Your task to perform on an android device: What's on my calendar today? Image 0: 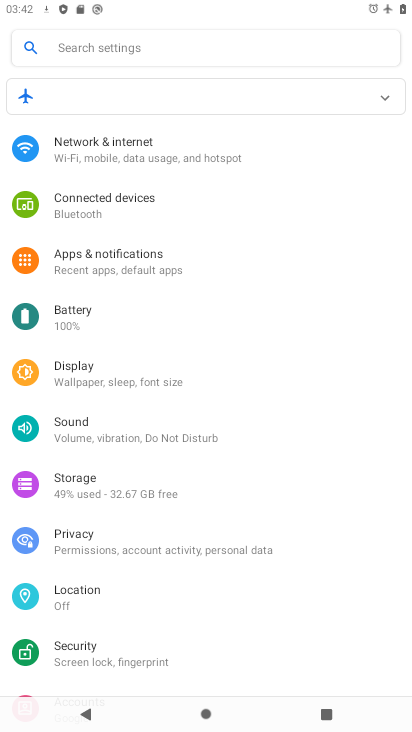
Step 0: press home button
Your task to perform on an android device: What's on my calendar today? Image 1: 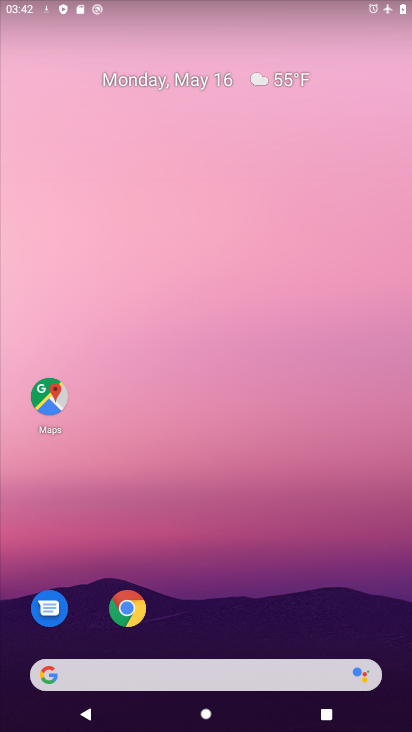
Step 1: drag from (216, 628) to (204, 254)
Your task to perform on an android device: What's on my calendar today? Image 2: 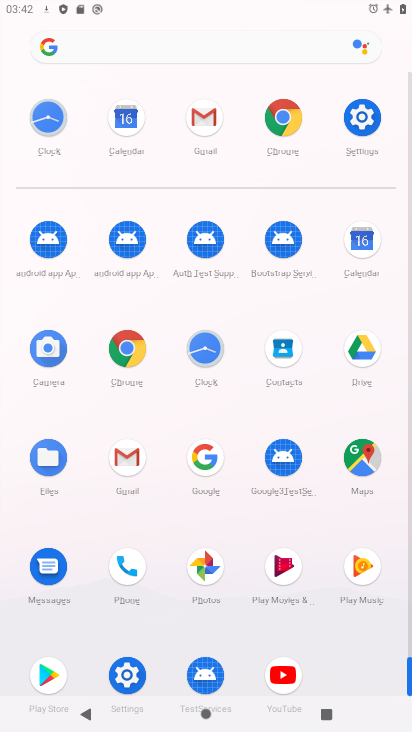
Step 2: click (361, 256)
Your task to perform on an android device: What's on my calendar today? Image 3: 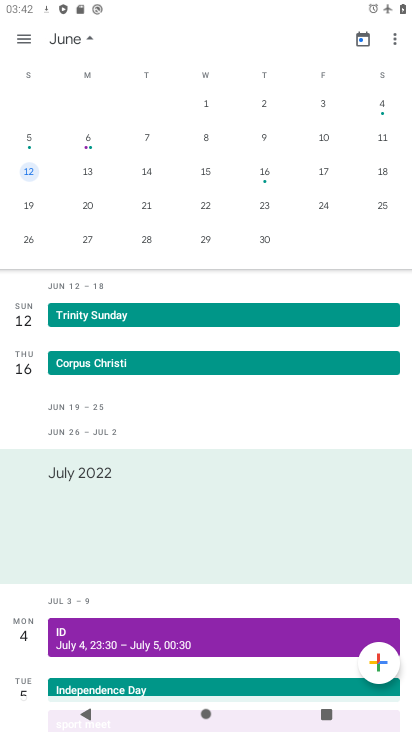
Step 3: click (78, 46)
Your task to perform on an android device: What's on my calendar today? Image 4: 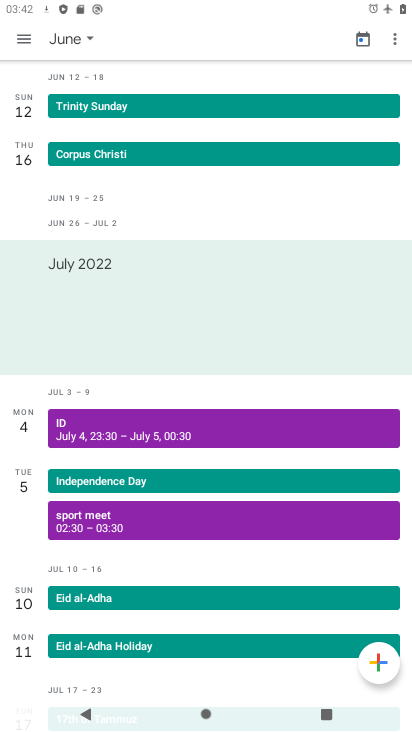
Step 4: click (79, 39)
Your task to perform on an android device: What's on my calendar today? Image 5: 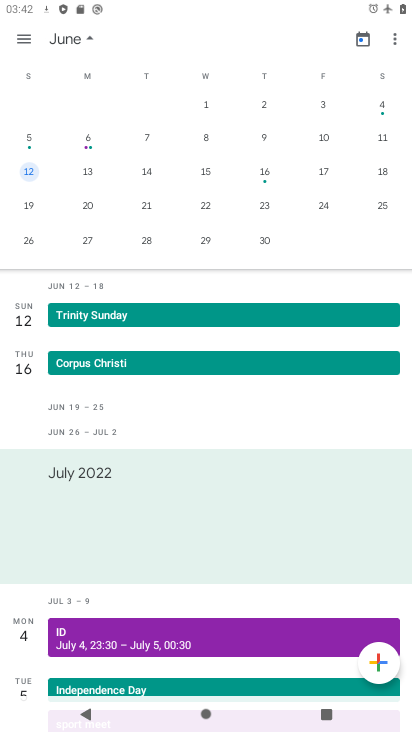
Step 5: click (387, 175)
Your task to perform on an android device: What's on my calendar today? Image 6: 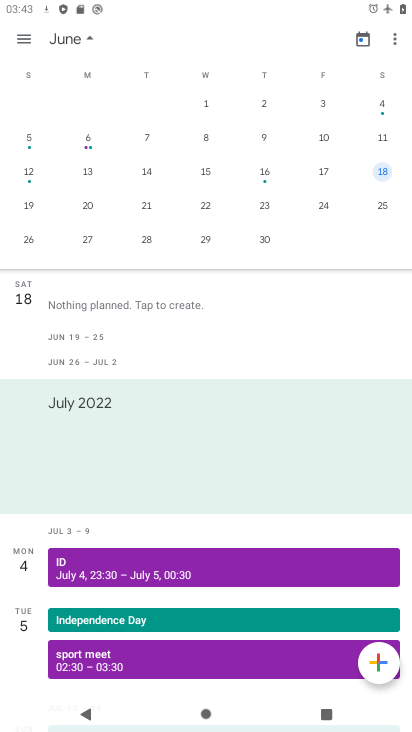
Step 6: task complete